Your task to perform on an android device: Show the shopping cart on target.com. Search for macbook on target.com, select the first entry, and add it to the cart. Image 0: 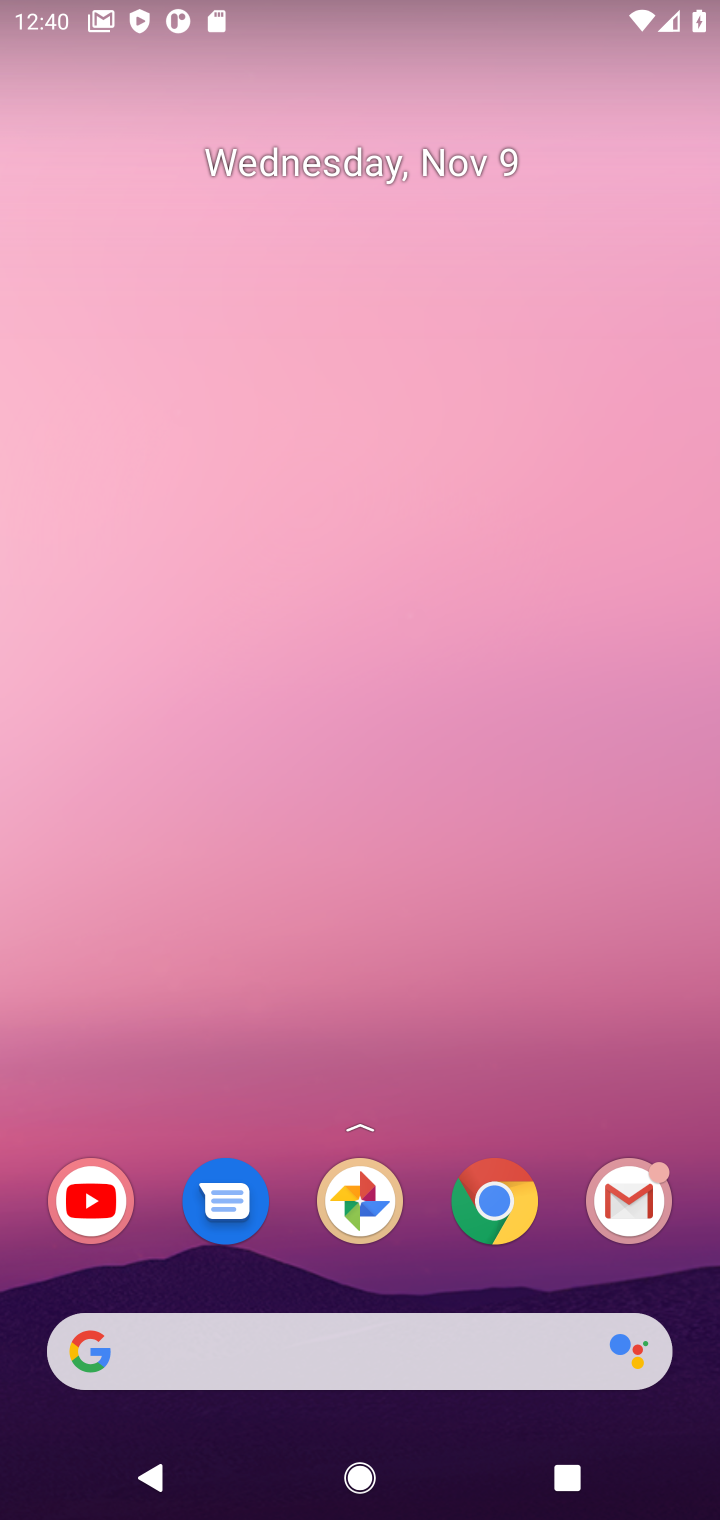
Step 0: drag from (298, 1096) to (291, 319)
Your task to perform on an android device: Show the shopping cart on target.com. Search for macbook on target.com, select the first entry, and add it to the cart. Image 1: 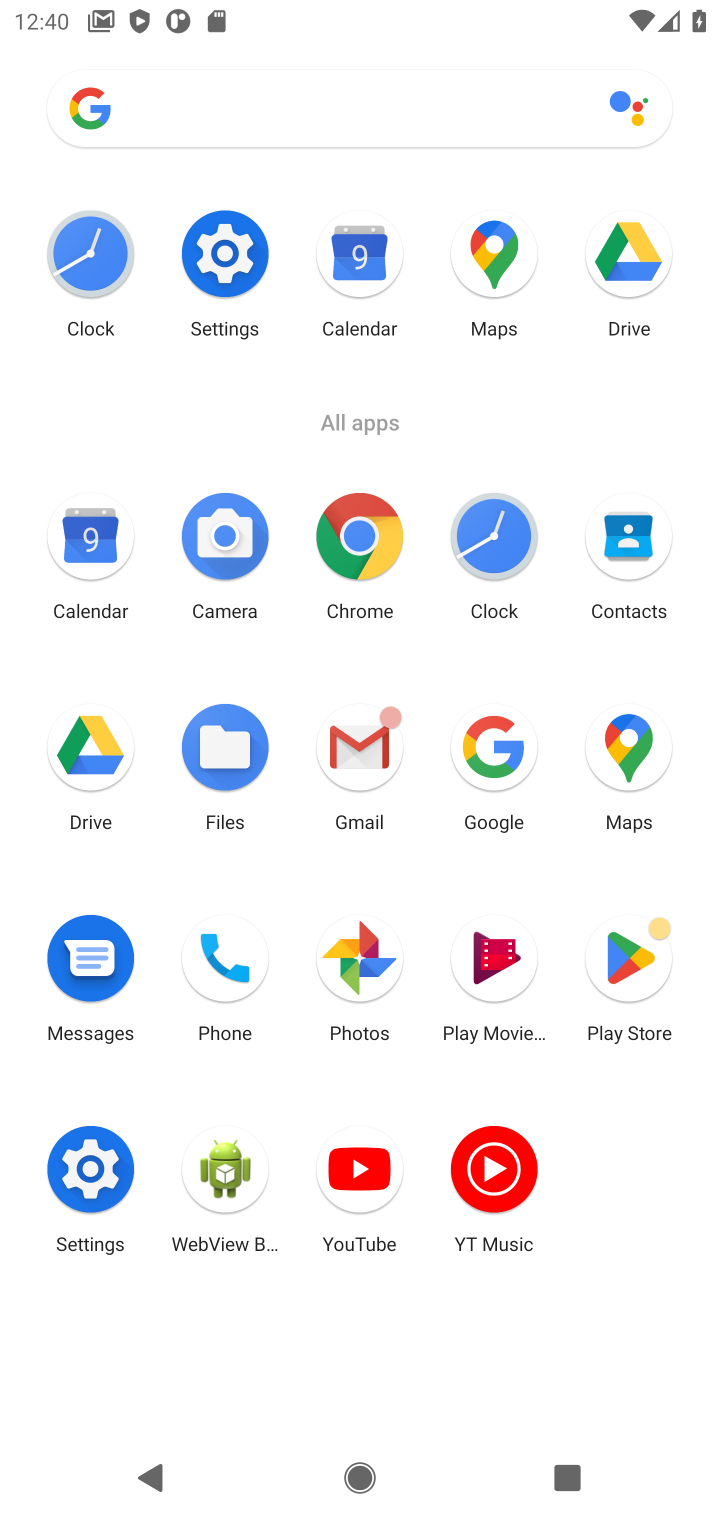
Step 1: click (496, 775)
Your task to perform on an android device: Show the shopping cart on target.com. Search for macbook on target.com, select the first entry, and add it to the cart. Image 2: 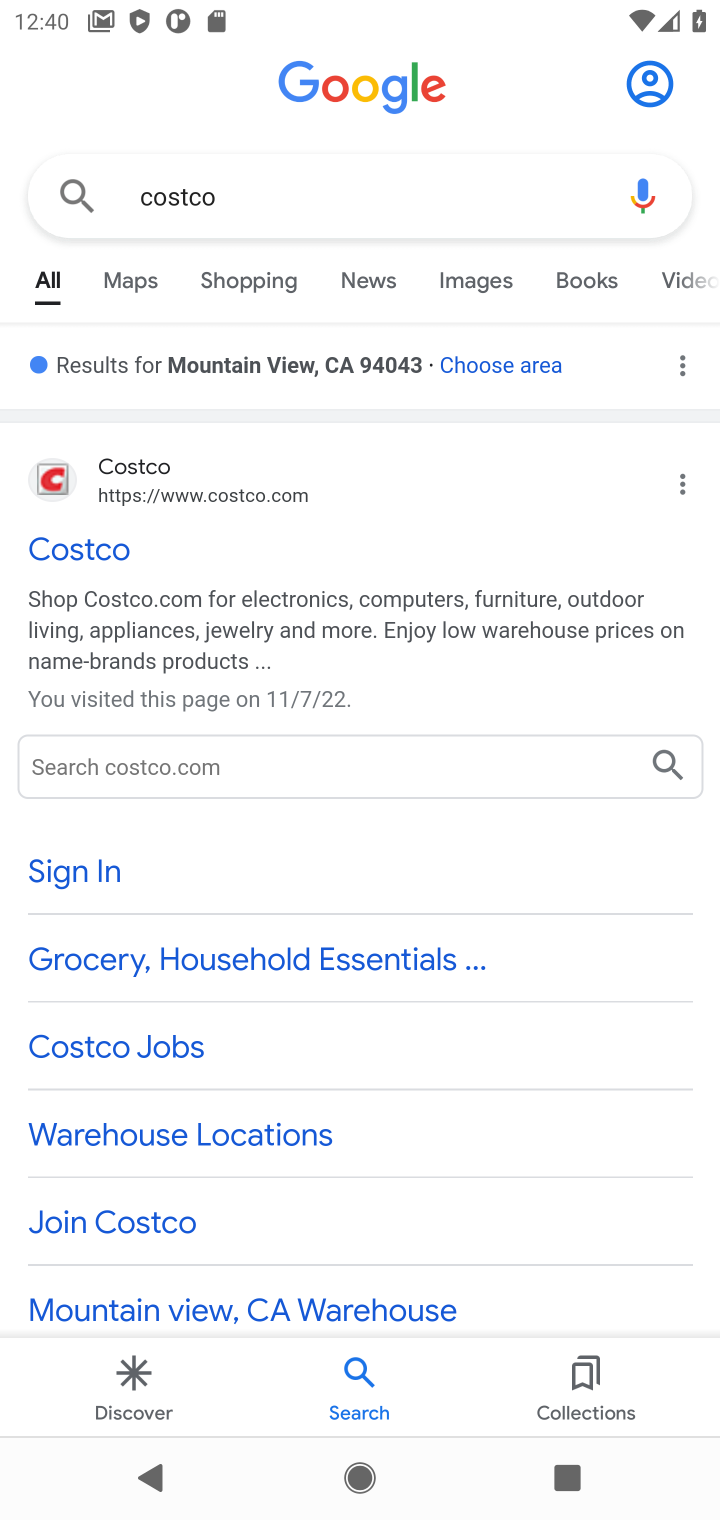
Step 2: click (284, 209)
Your task to perform on an android device: Show the shopping cart on target.com. Search for macbook on target.com, select the first entry, and add it to the cart. Image 3: 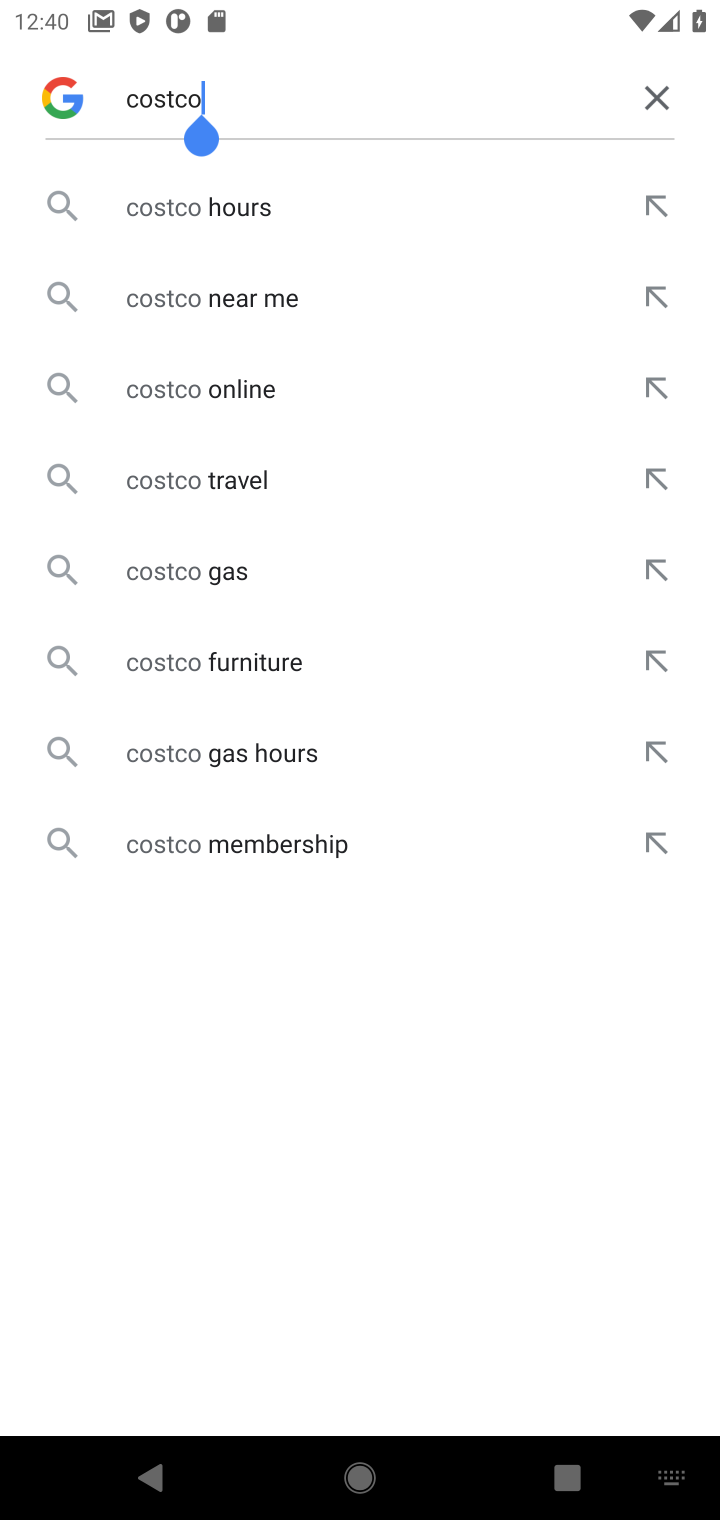
Step 3: click (658, 93)
Your task to perform on an android device: Show the shopping cart on target.com. Search for macbook on target.com, select the first entry, and add it to the cart. Image 4: 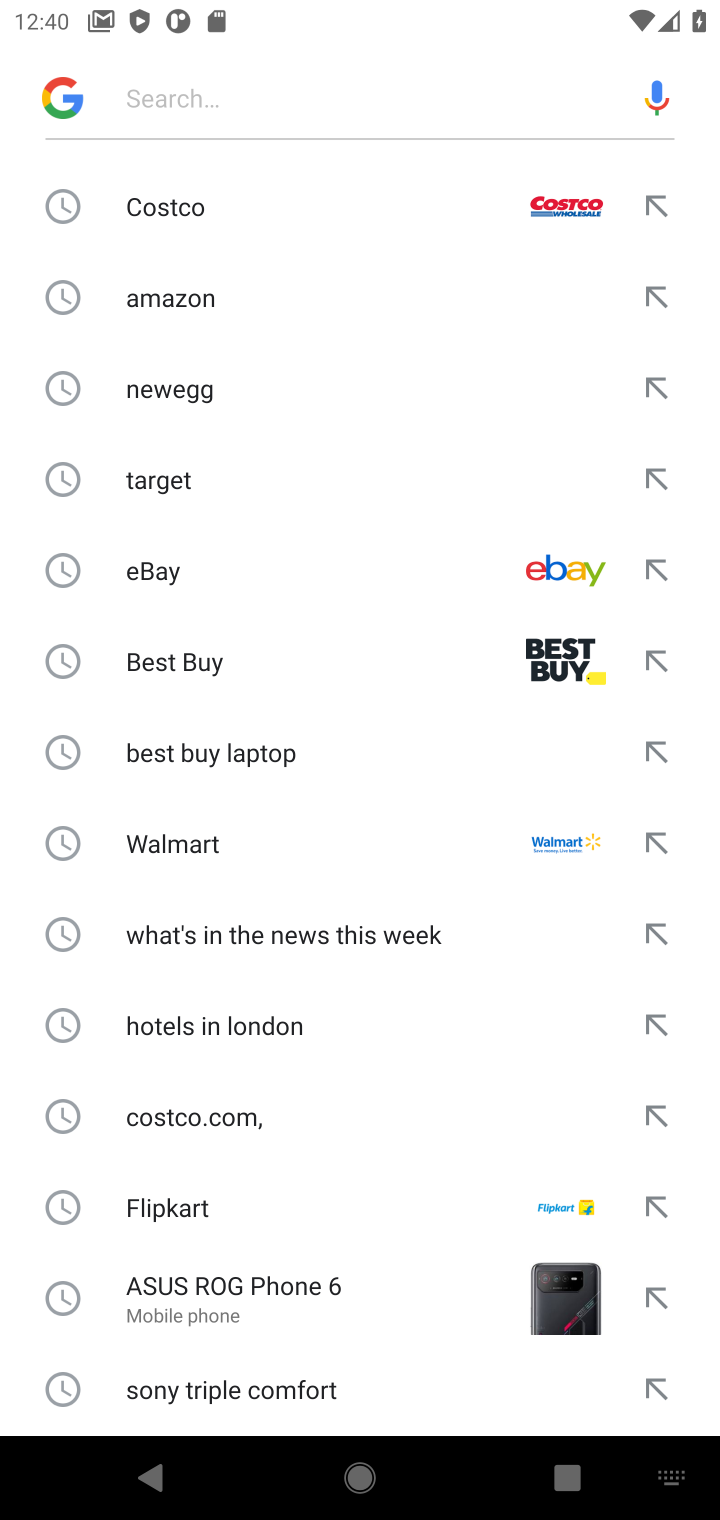
Step 4: type "target.com"
Your task to perform on an android device: Show the shopping cart on target.com. Search for macbook on target.com, select the first entry, and add it to the cart. Image 5: 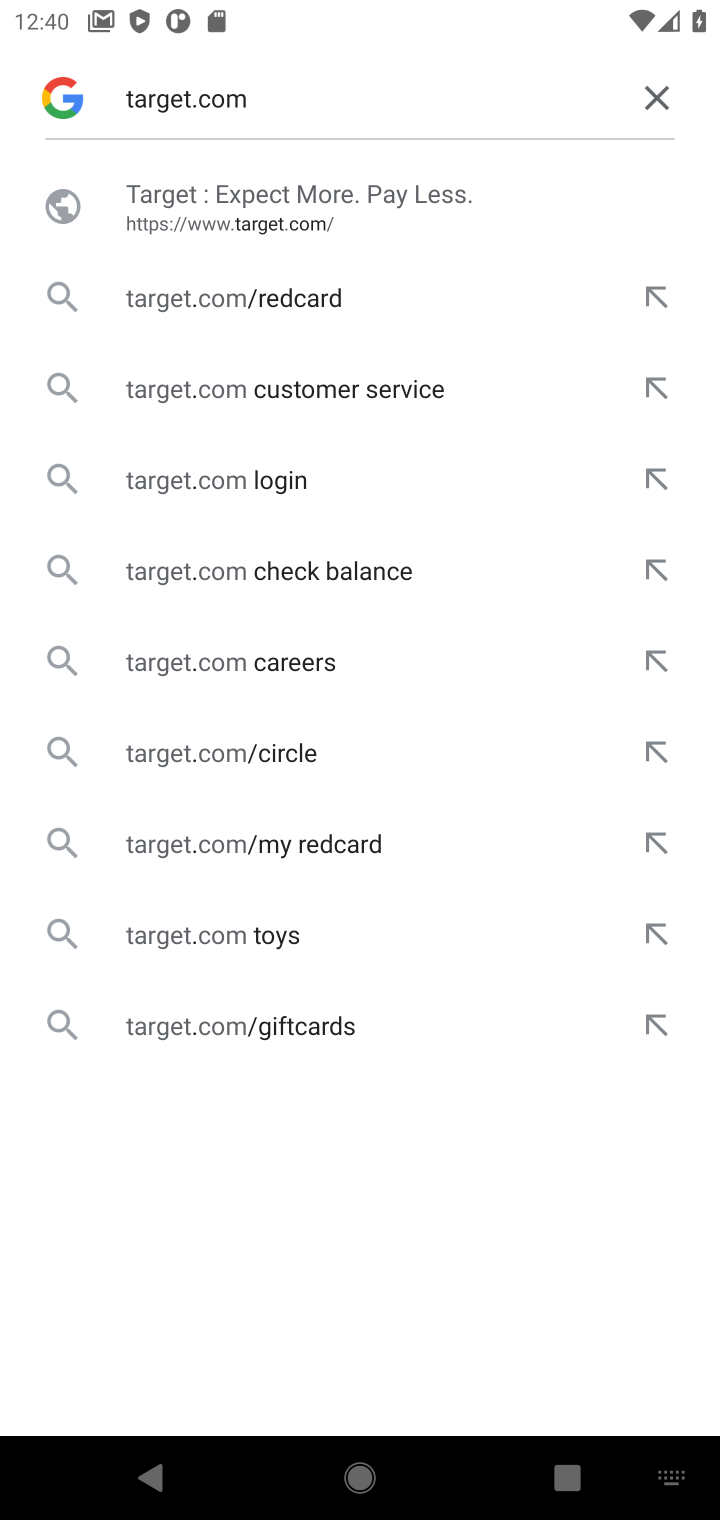
Step 5: click (340, 214)
Your task to perform on an android device: Show the shopping cart on target.com. Search for macbook on target.com, select the first entry, and add it to the cart. Image 6: 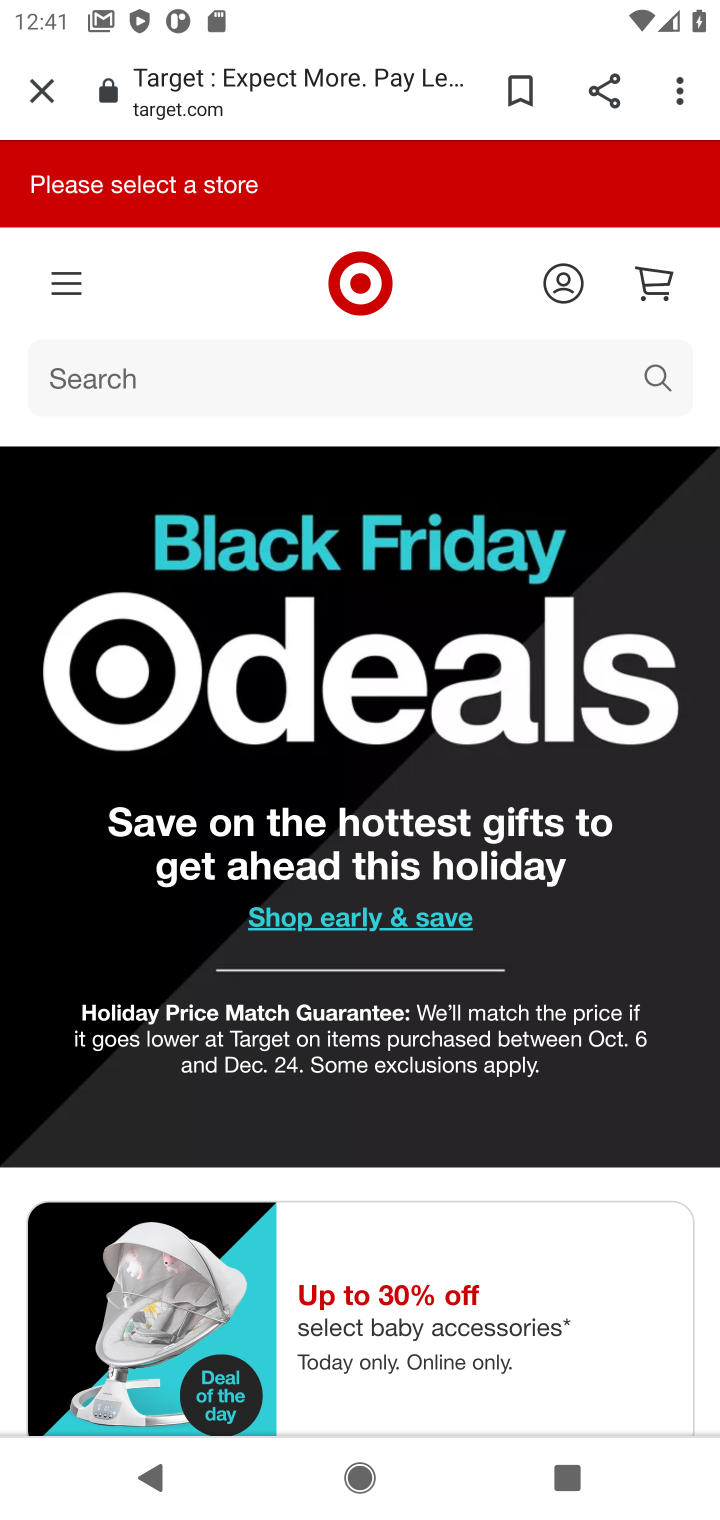
Step 6: click (325, 376)
Your task to perform on an android device: Show the shopping cart on target.com. Search for macbook on target.com, select the first entry, and add it to the cart. Image 7: 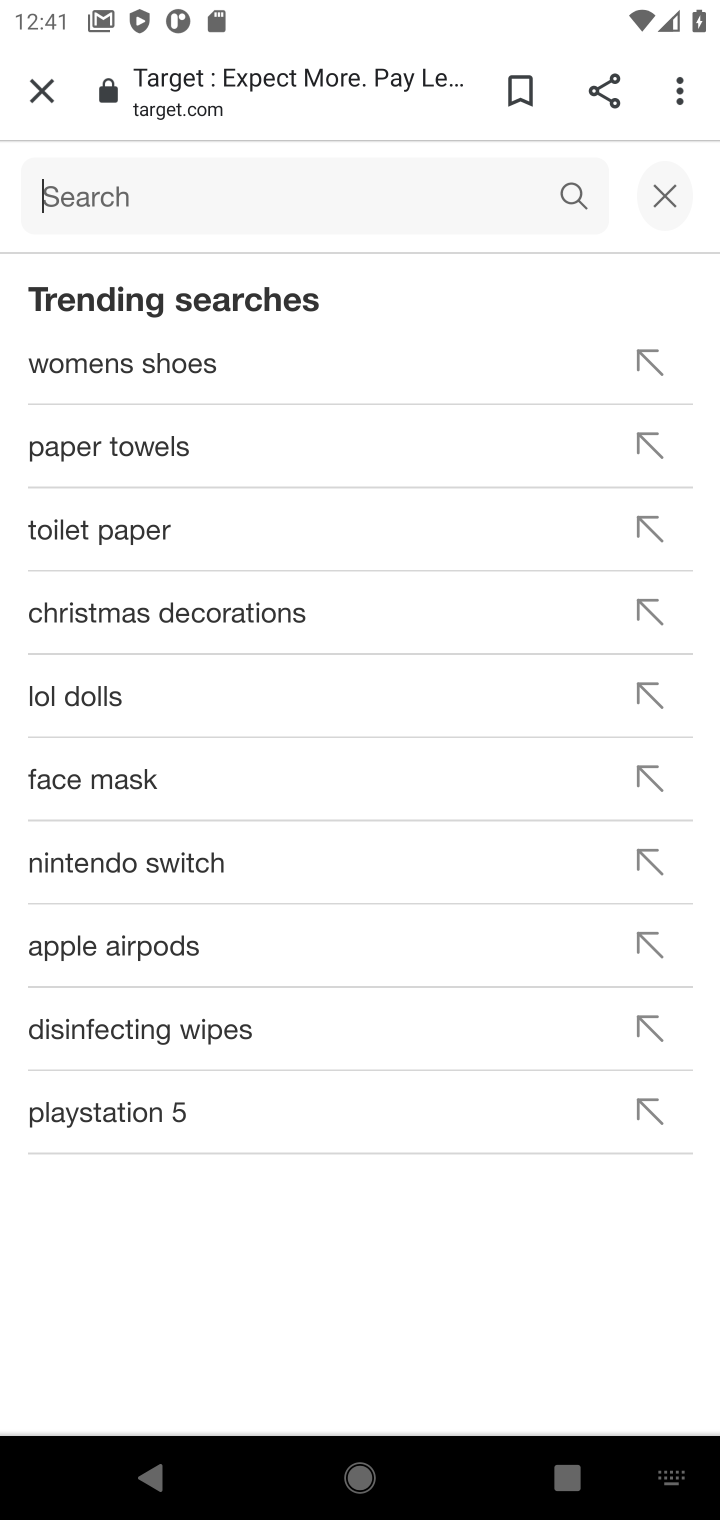
Step 7: type "macbook"
Your task to perform on an android device: Show the shopping cart on target.com. Search for macbook on target.com, select the first entry, and add it to the cart. Image 8: 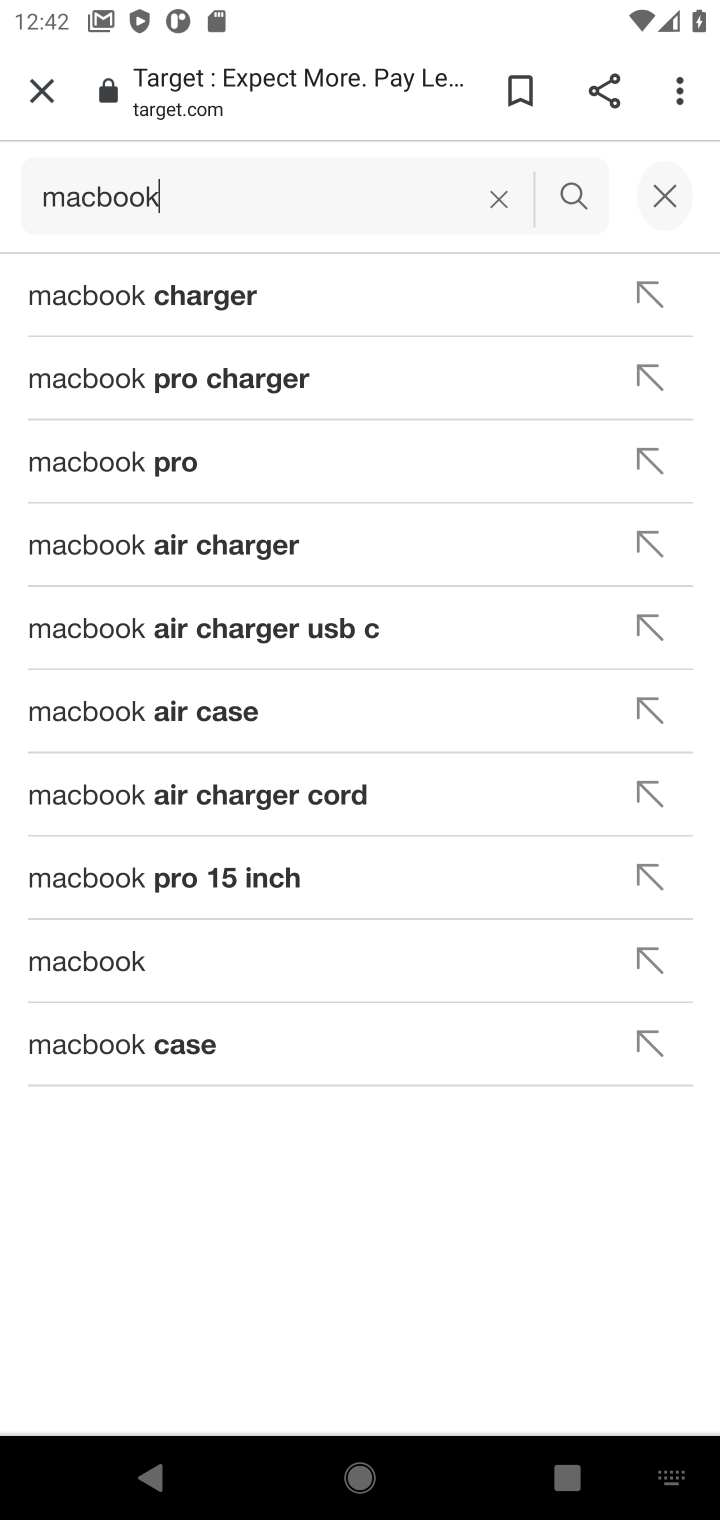
Step 8: click (220, 306)
Your task to perform on an android device: Show the shopping cart on target.com. Search for macbook on target.com, select the first entry, and add it to the cart. Image 9: 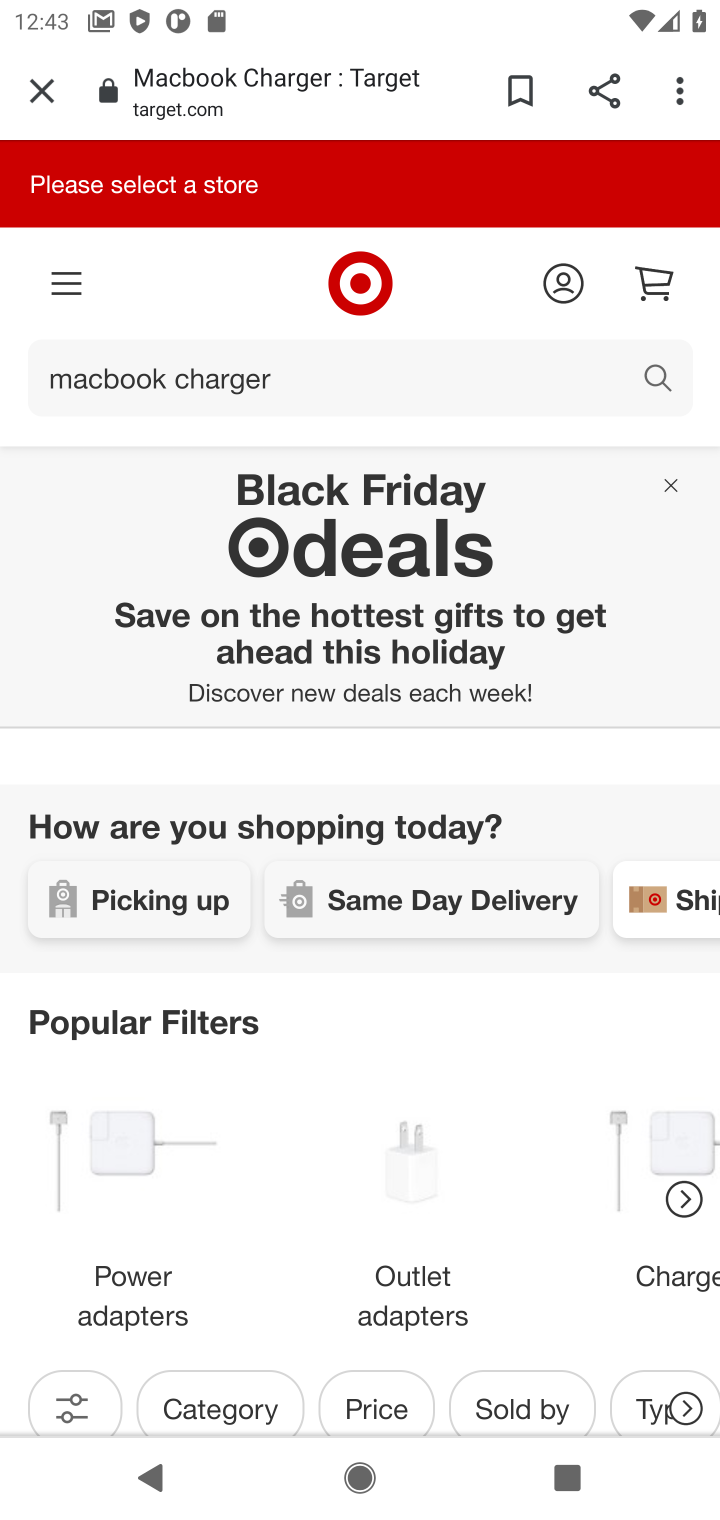
Step 9: click (262, 395)
Your task to perform on an android device: Show the shopping cart on target.com. Search for macbook on target.com, select the first entry, and add it to the cart. Image 10: 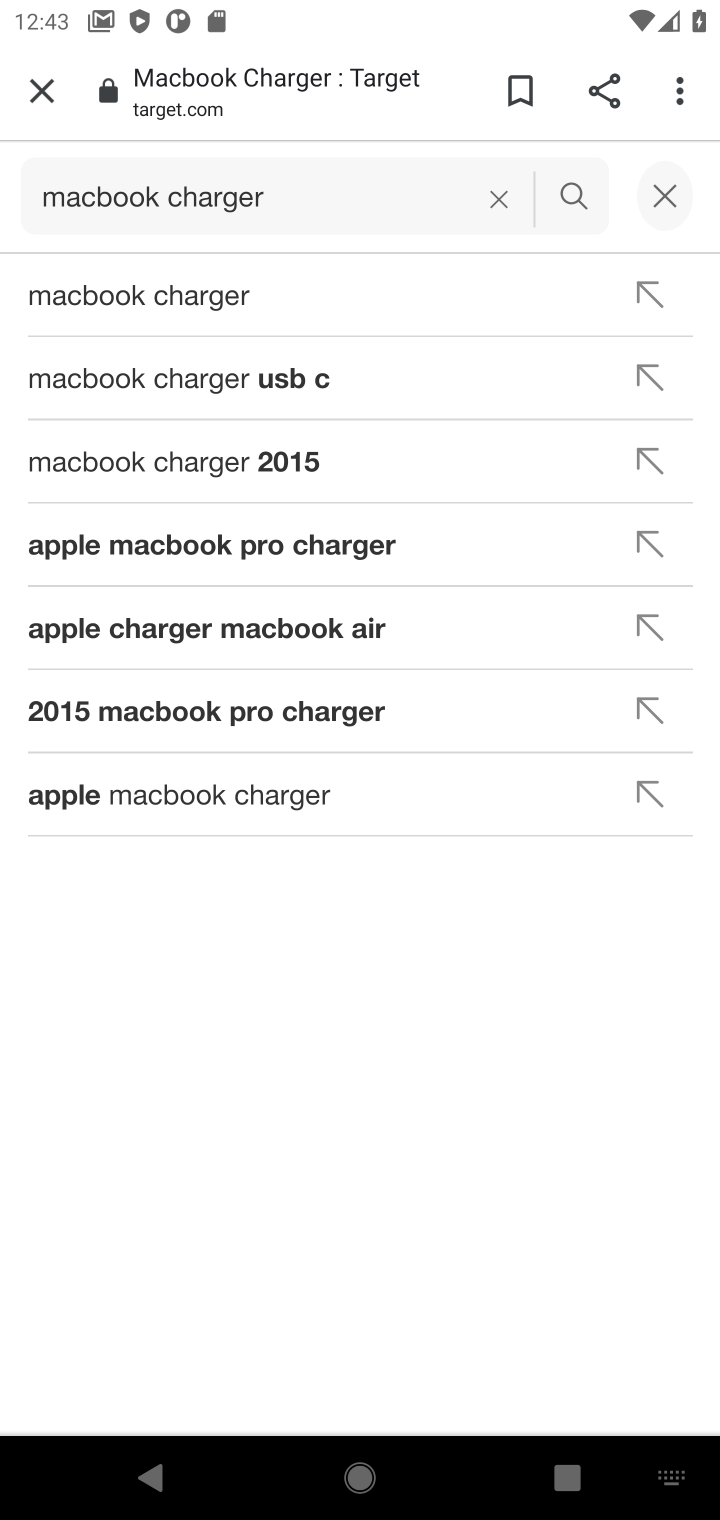
Step 10: click (674, 191)
Your task to perform on an android device: Show the shopping cart on target.com. Search for macbook on target.com, select the first entry, and add it to the cart. Image 11: 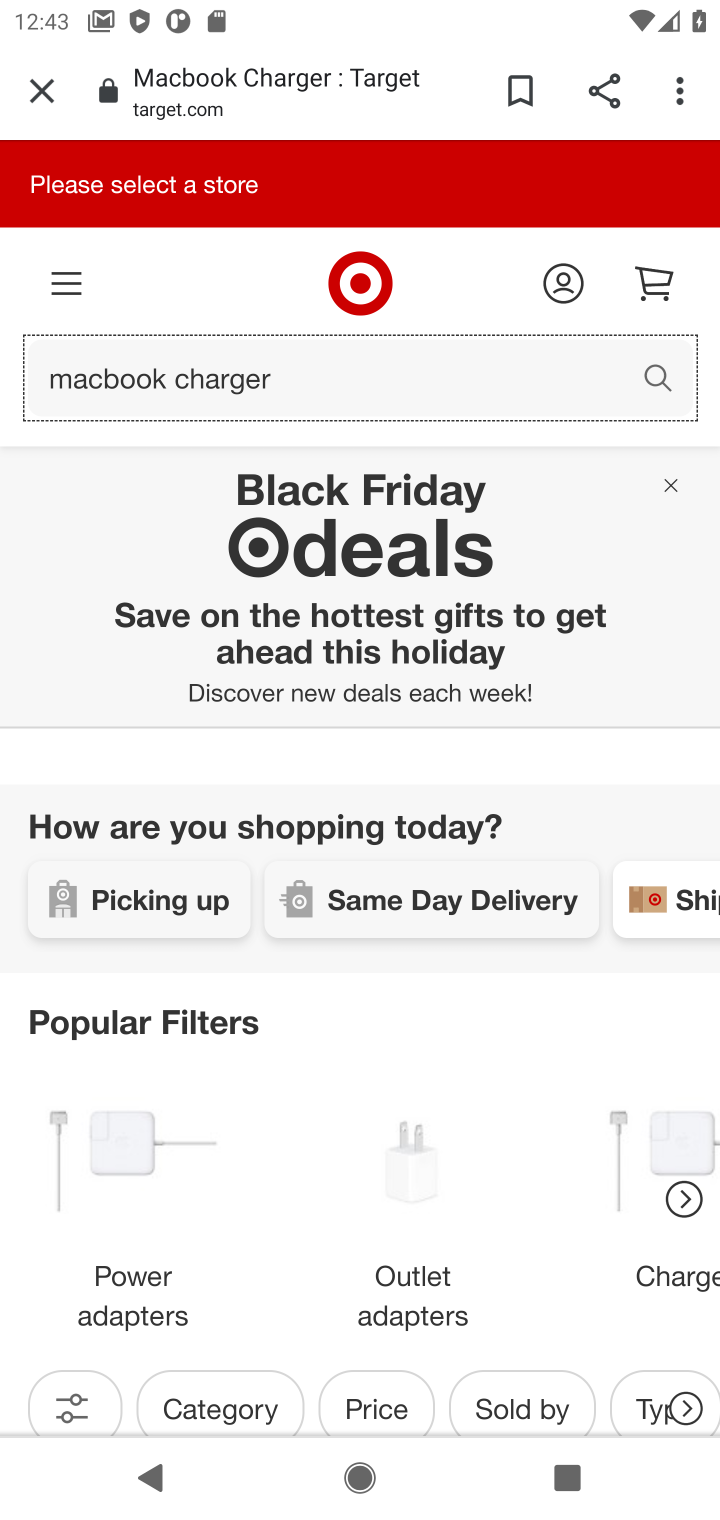
Step 11: click (288, 365)
Your task to perform on an android device: Show the shopping cart on target.com. Search for macbook on target.com, select the first entry, and add it to the cart. Image 12: 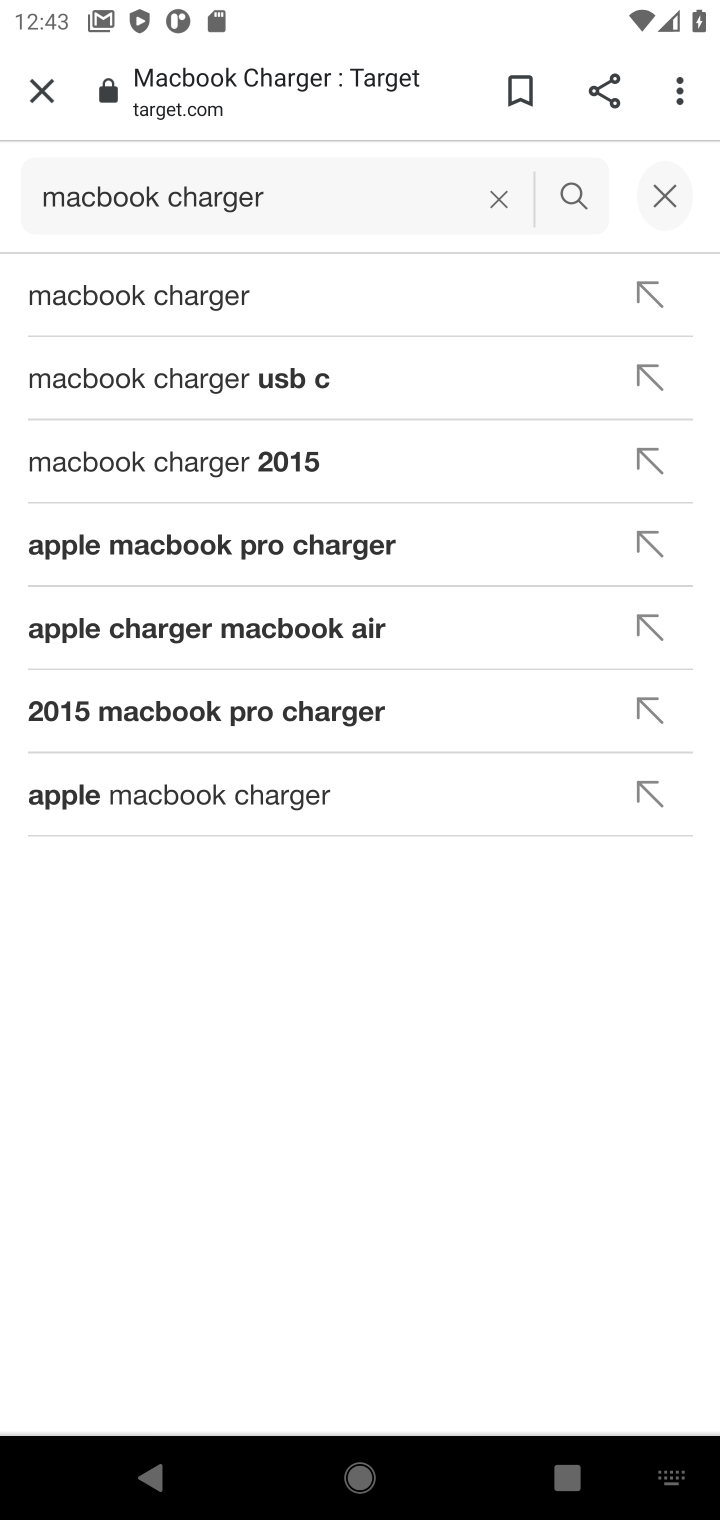
Step 12: click (493, 200)
Your task to perform on an android device: Show the shopping cart on target.com. Search for macbook on target.com, select the first entry, and add it to the cart. Image 13: 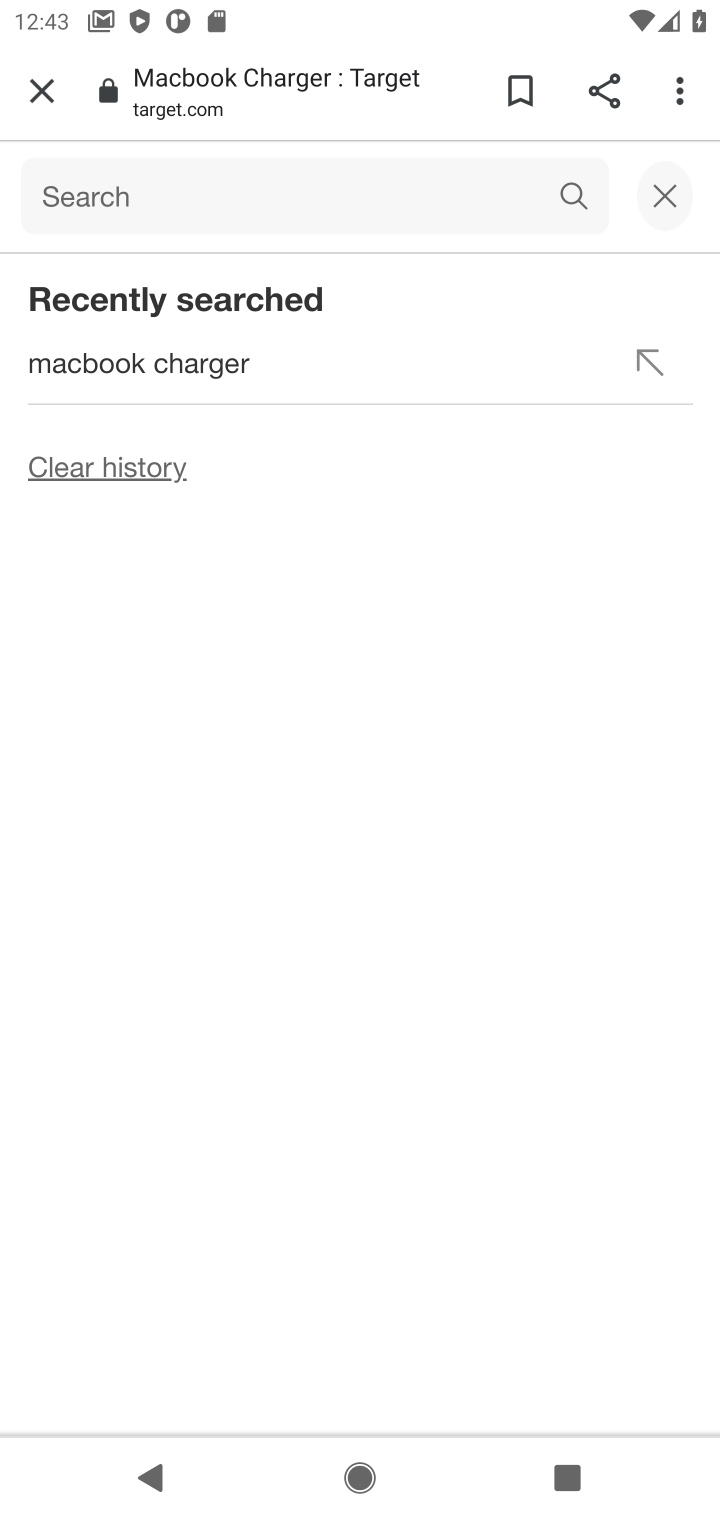
Step 13: click (343, 182)
Your task to perform on an android device: Show the shopping cart on target.com. Search for macbook on target.com, select the first entry, and add it to the cart. Image 14: 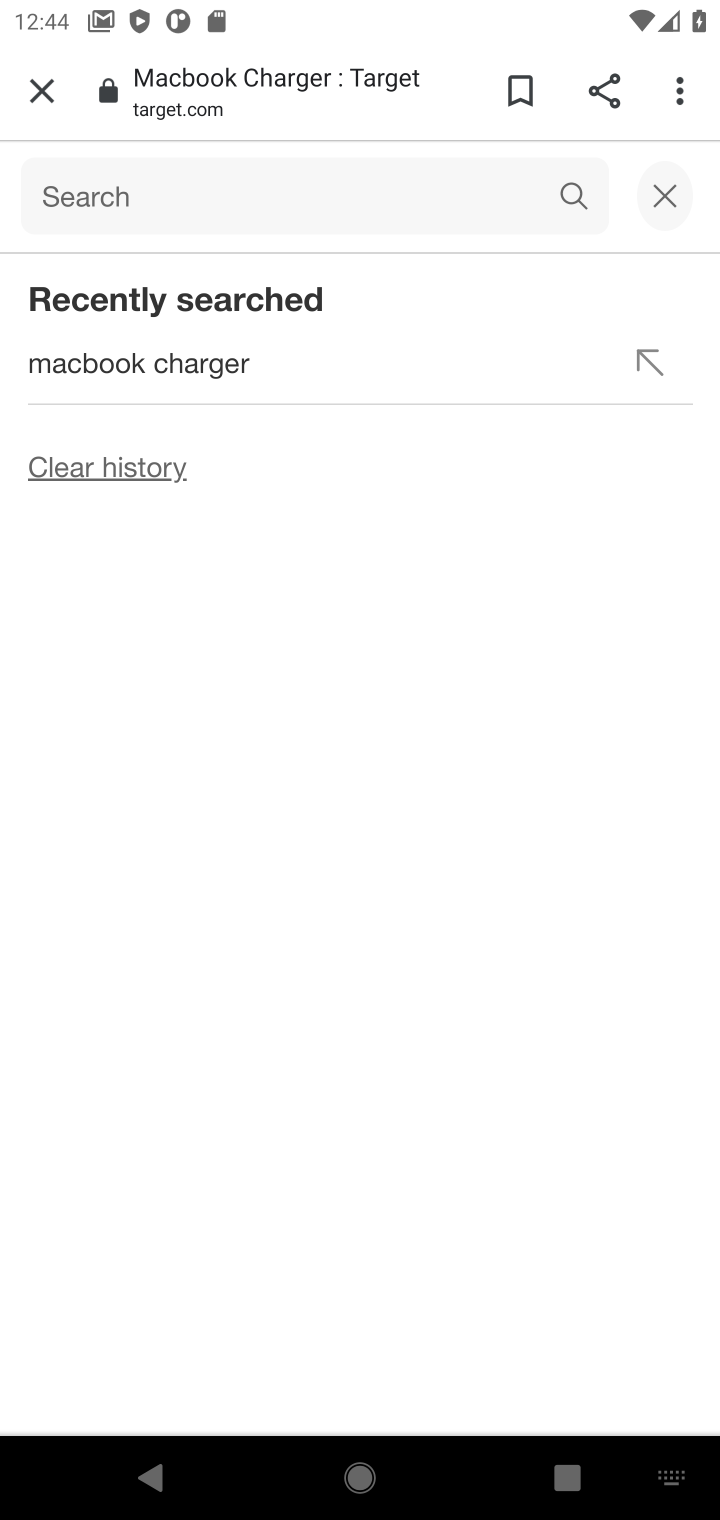
Step 14: type "macbook"
Your task to perform on an android device: Show the shopping cart on target.com. Search for macbook on target.com, select the first entry, and add it to the cart. Image 15: 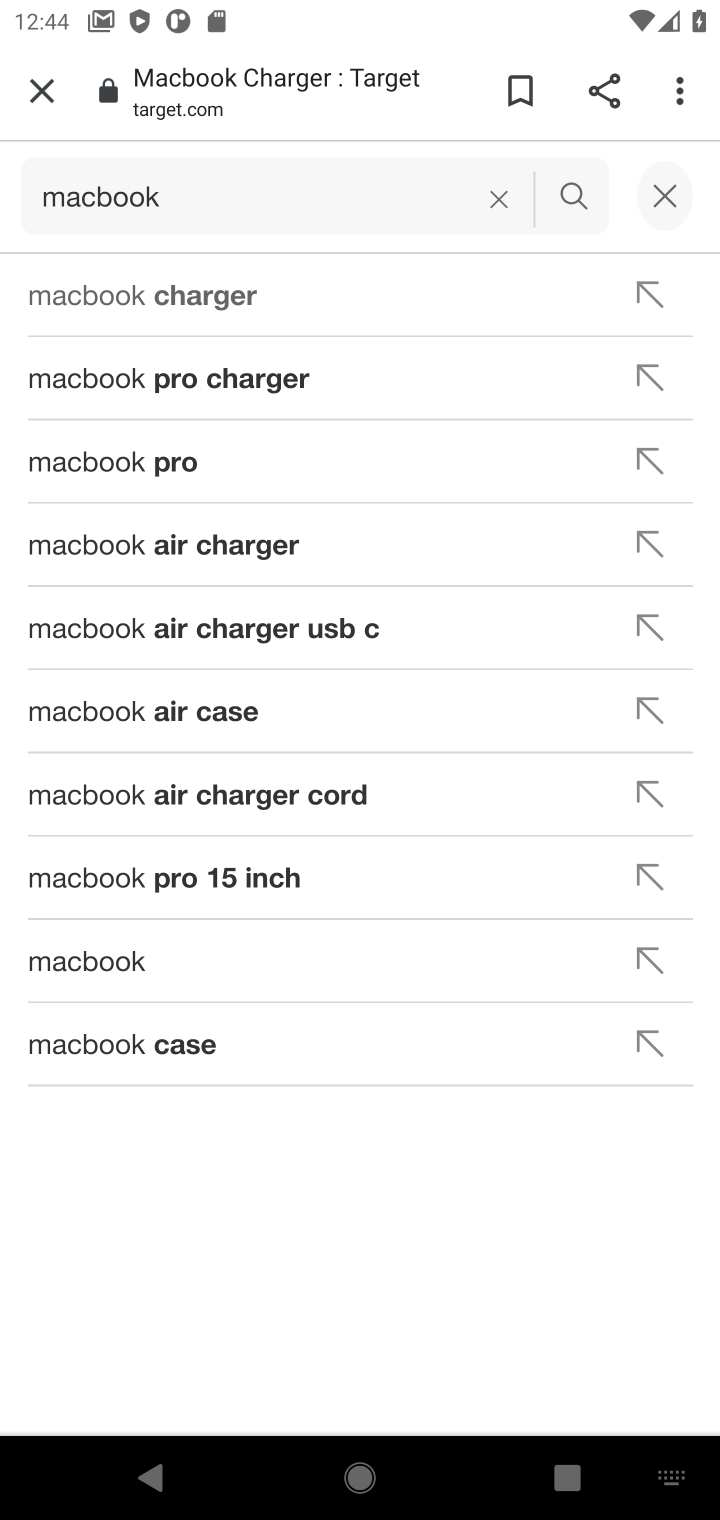
Step 15: click (114, 963)
Your task to perform on an android device: Show the shopping cart on target.com. Search for macbook on target.com, select the first entry, and add it to the cart. Image 16: 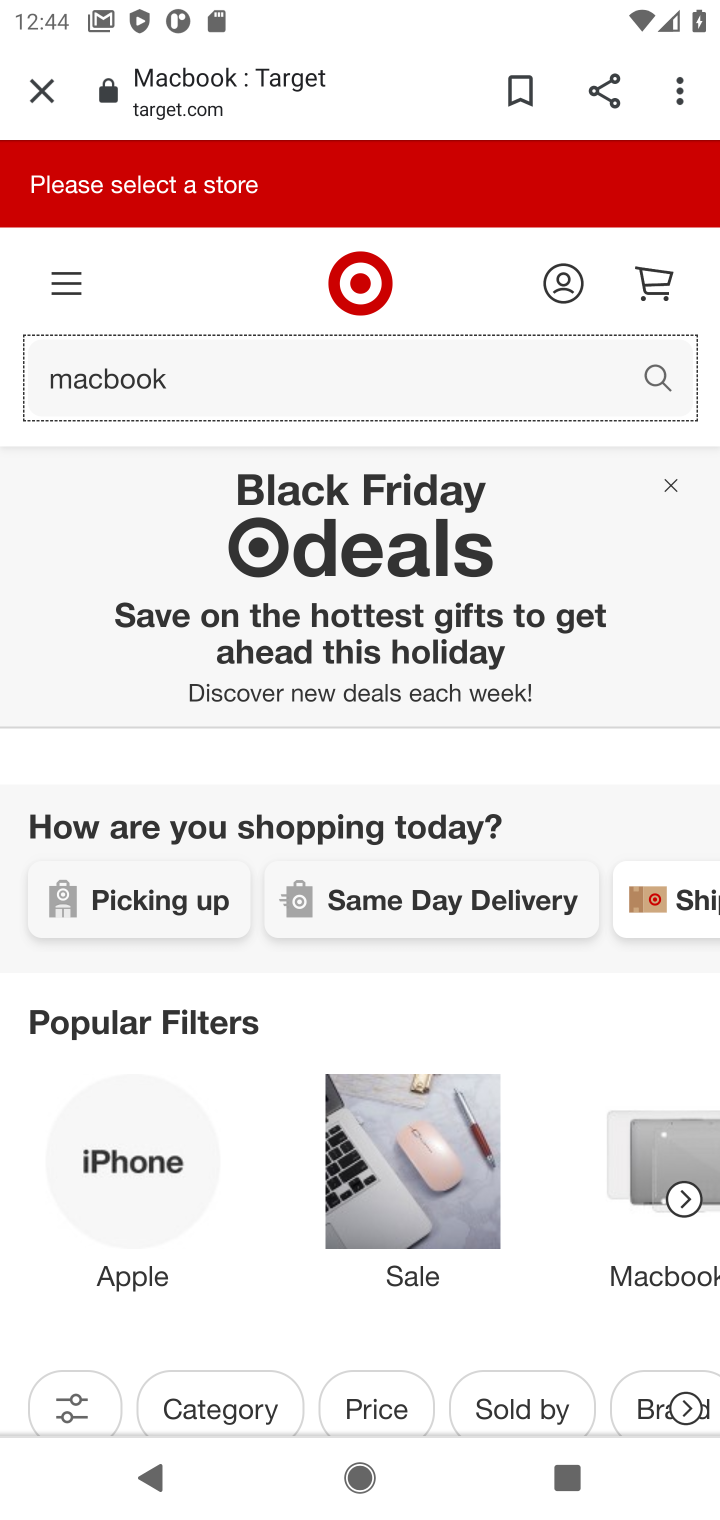
Step 16: click (275, 772)
Your task to perform on an android device: Show the shopping cart on target.com. Search for macbook on target.com, select the first entry, and add it to the cart. Image 17: 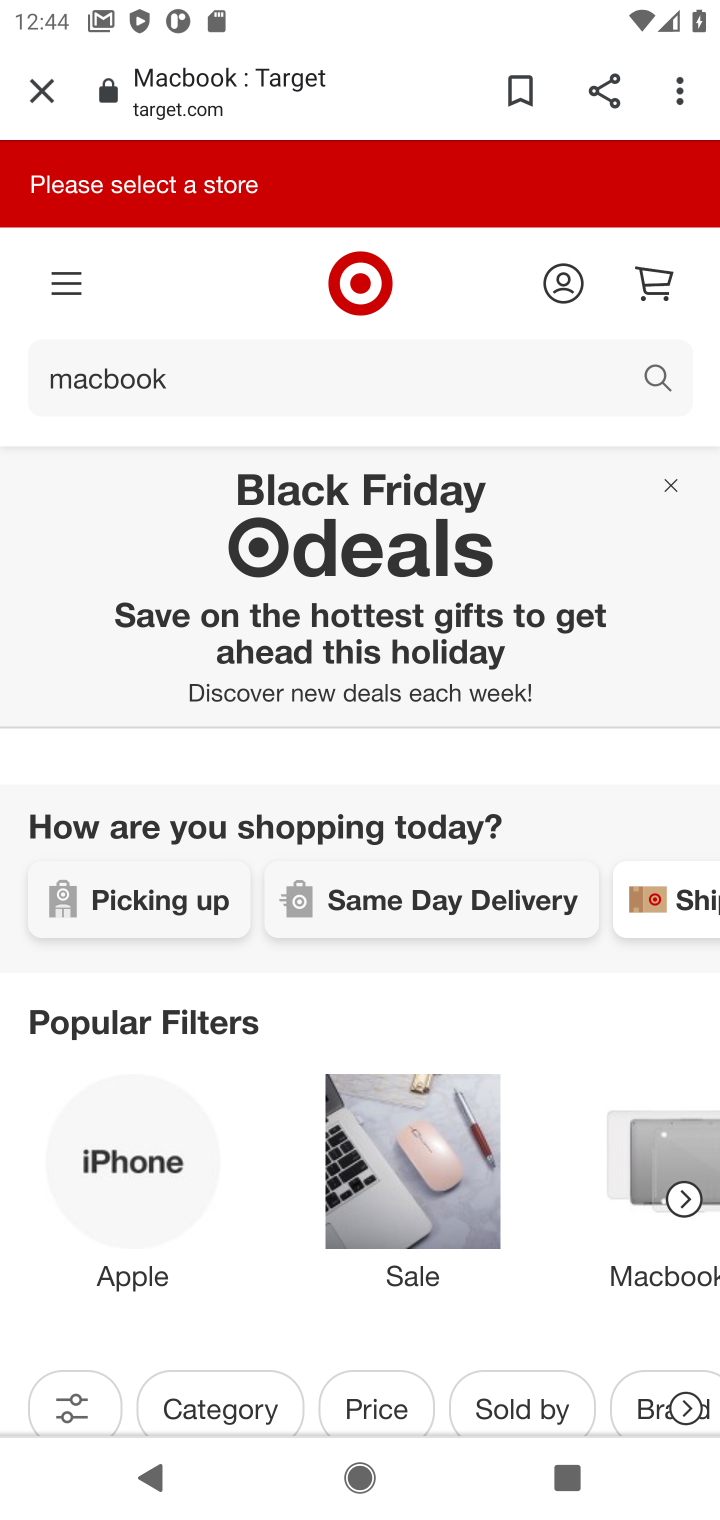
Step 17: drag from (88, 1261) to (182, 950)
Your task to perform on an android device: Show the shopping cart on target.com. Search for macbook on target.com, select the first entry, and add it to the cart. Image 18: 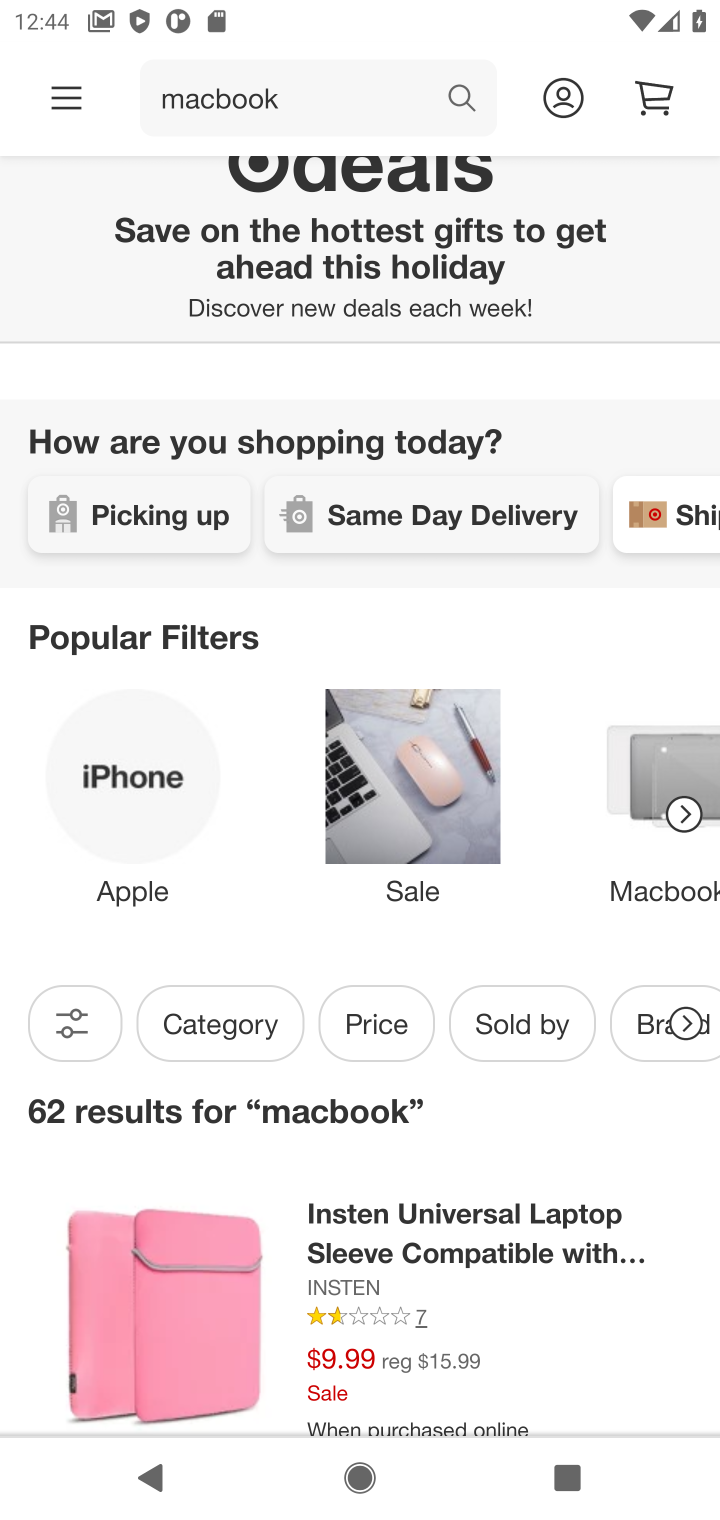
Step 18: click (248, 1370)
Your task to perform on an android device: Show the shopping cart on target.com. Search for macbook on target.com, select the first entry, and add it to the cart. Image 19: 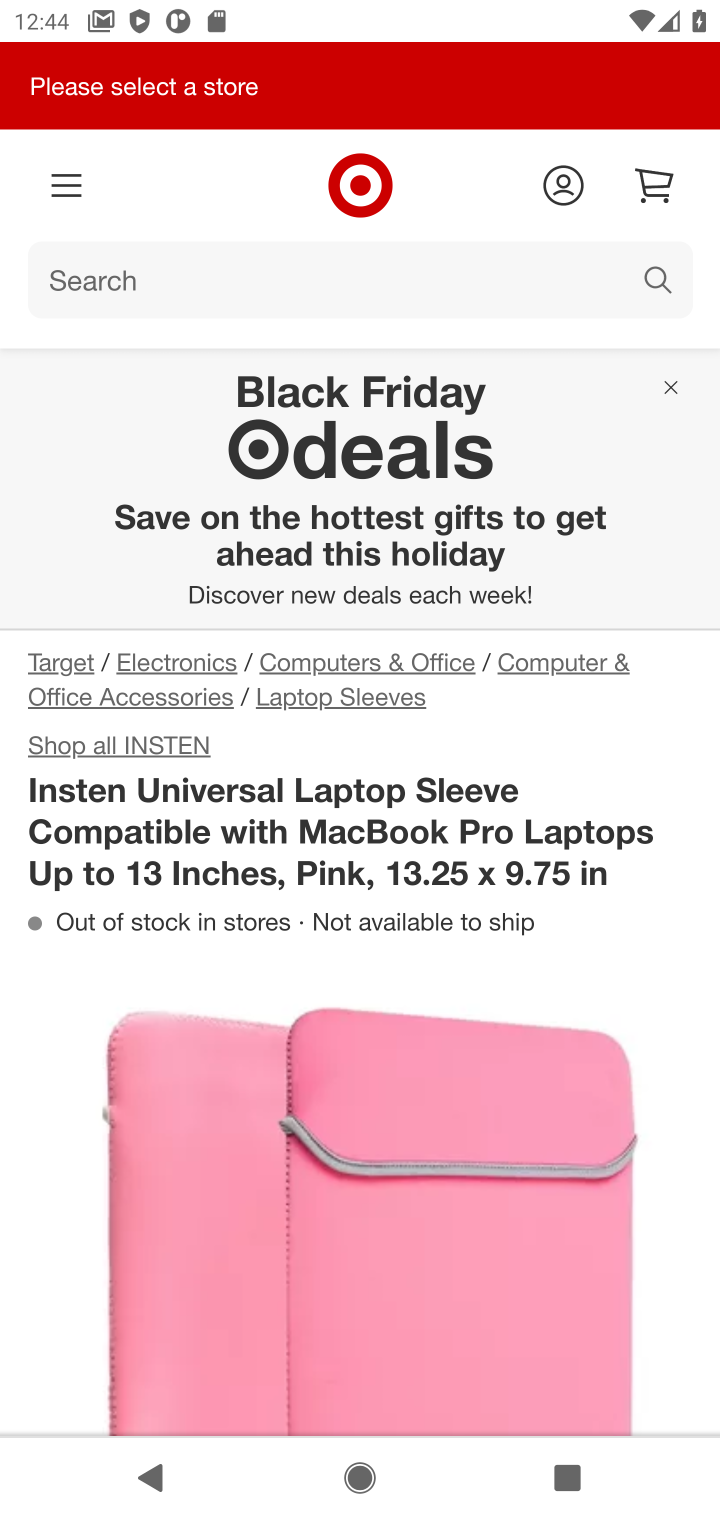
Step 19: drag from (443, 1061) to (463, 471)
Your task to perform on an android device: Show the shopping cart on target.com. Search for macbook on target.com, select the first entry, and add it to the cart. Image 20: 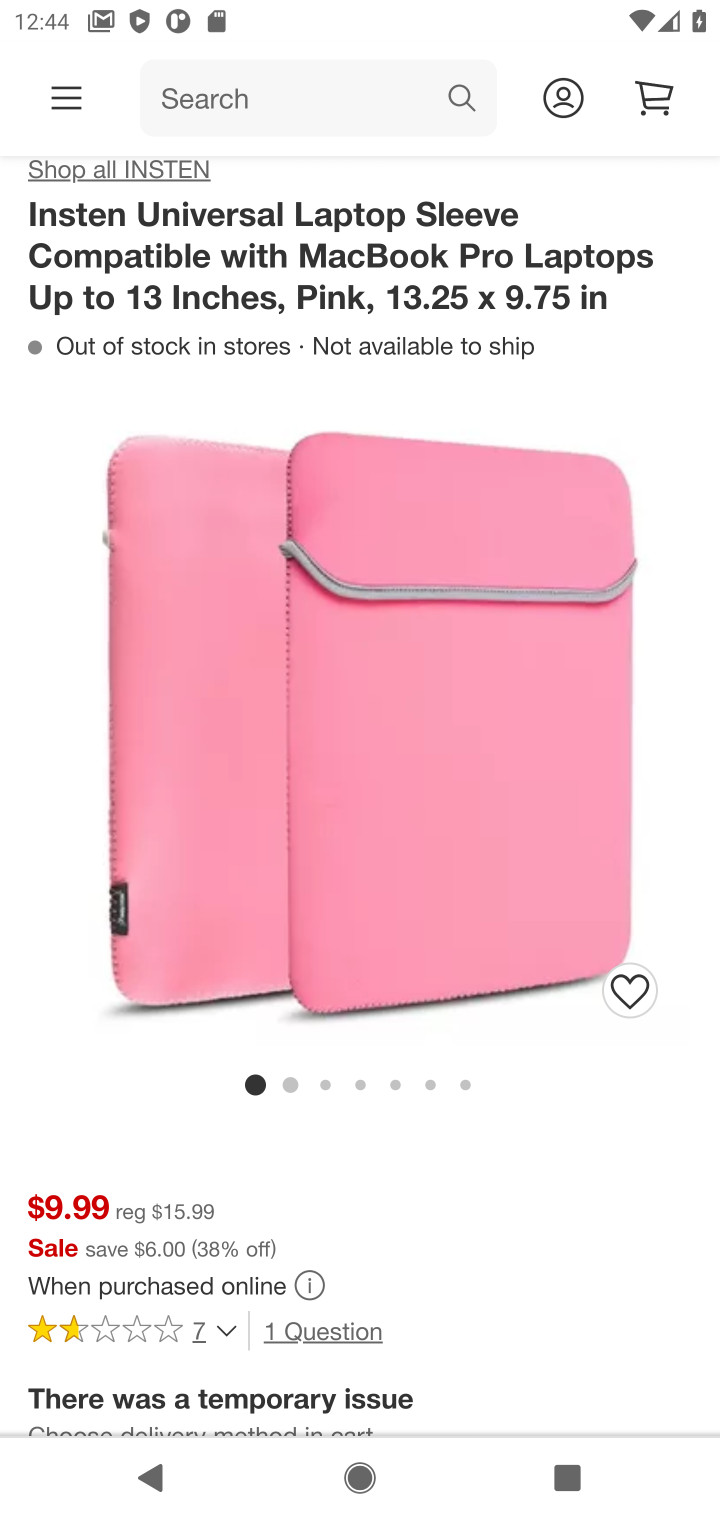
Step 20: drag from (413, 1150) to (390, 945)
Your task to perform on an android device: Show the shopping cart on target.com. Search for macbook on target.com, select the first entry, and add it to the cart. Image 21: 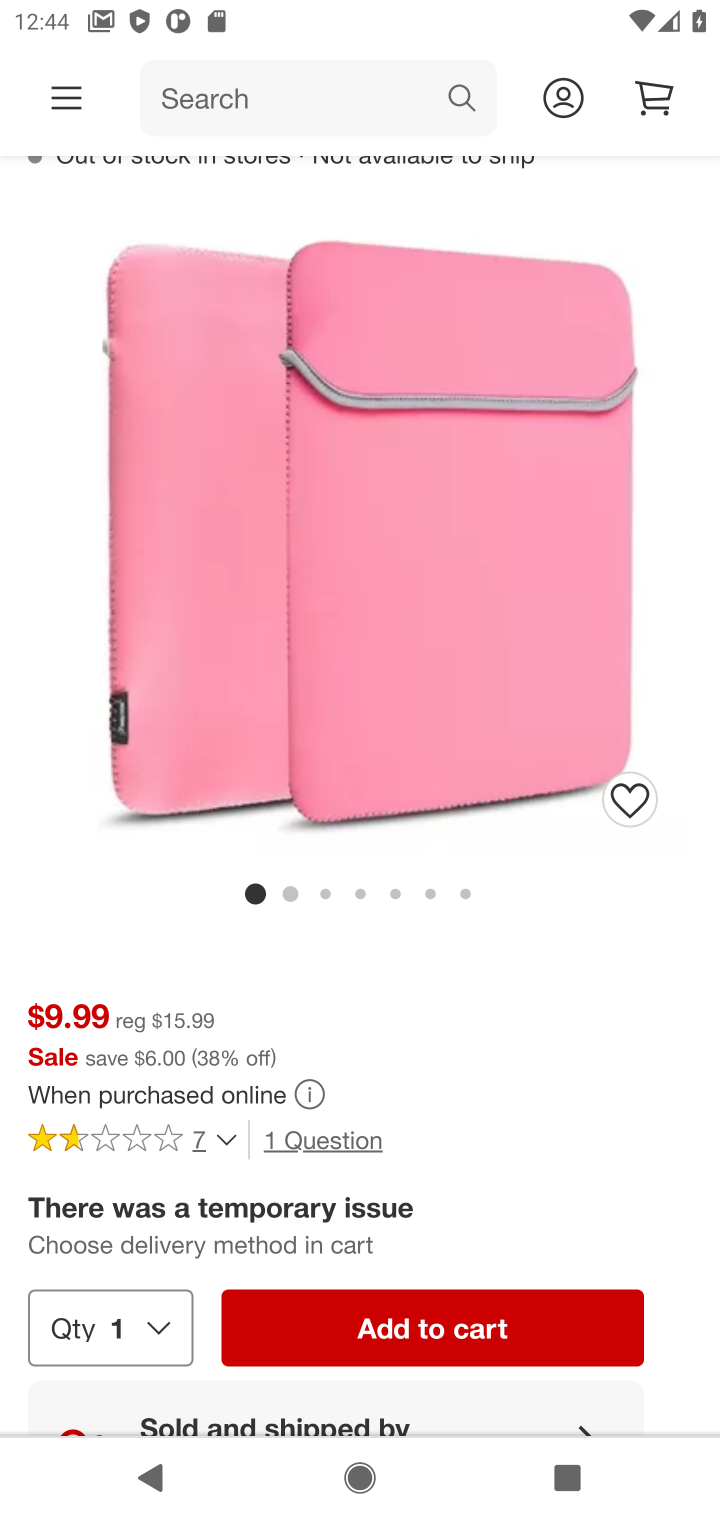
Step 21: click (408, 1340)
Your task to perform on an android device: Show the shopping cart on target.com. Search for macbook on target.com, select the first entry, and add it to the cart. Image 22: 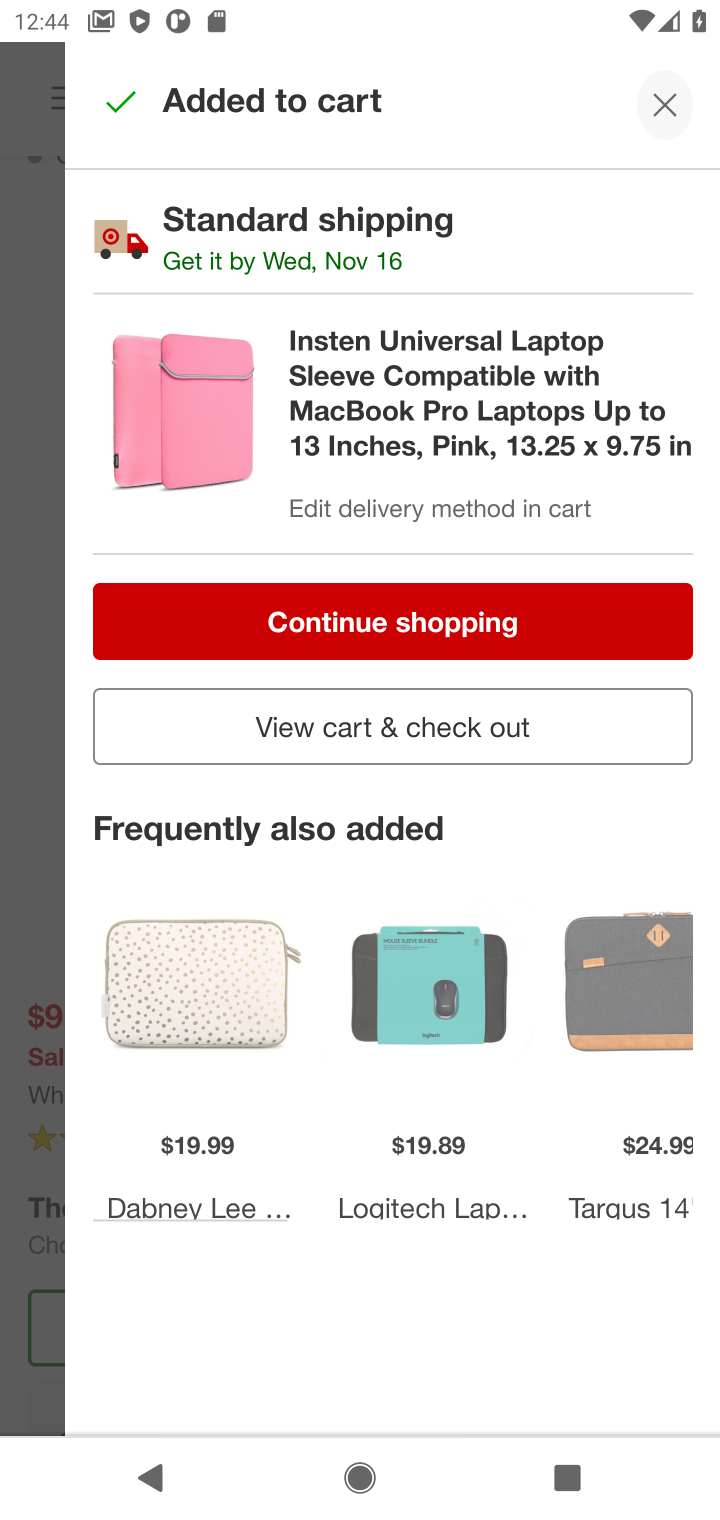
Step 22: task complete